Your task to perform on an android device: Go to Maps Image 0: 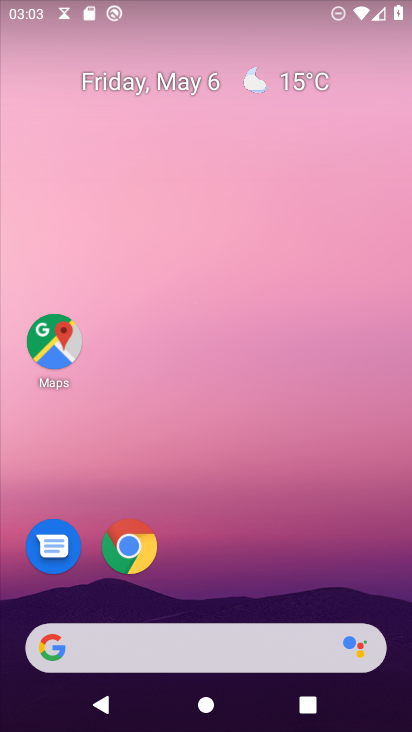
Step 0: click (48, 348)
Your task to perform on an android device: Go to Maps Image 1: 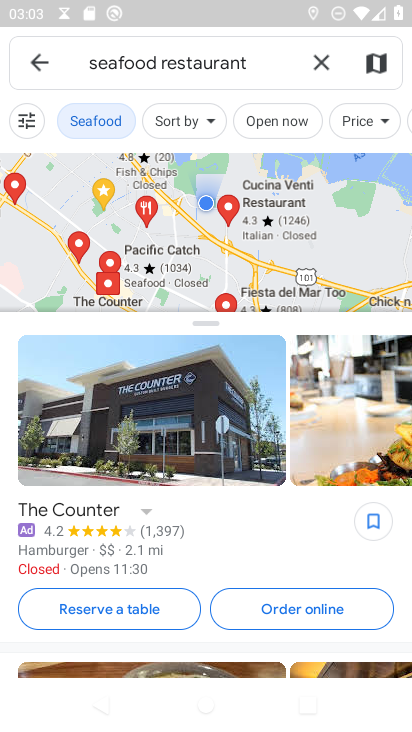
Step 1: task complete